Your task to perform on an android device: What's the weather going to be this weekend? Image 0: 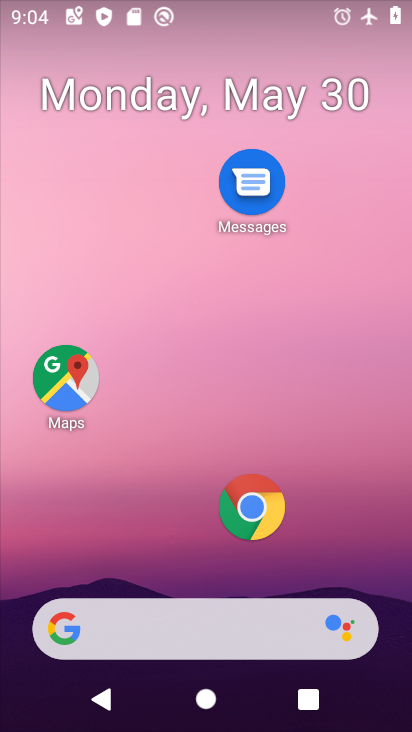
Step 0: click (223, 621)
Your task to perform on an android device: What's the weather going to be this weekend? Image 1: 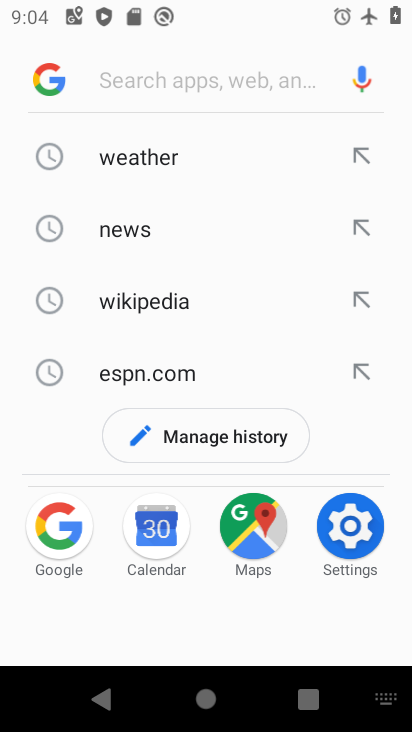
Step 1: click (165, 167)
Your task to perform on an android device: What's the weather going to be this weekend? Image 2: 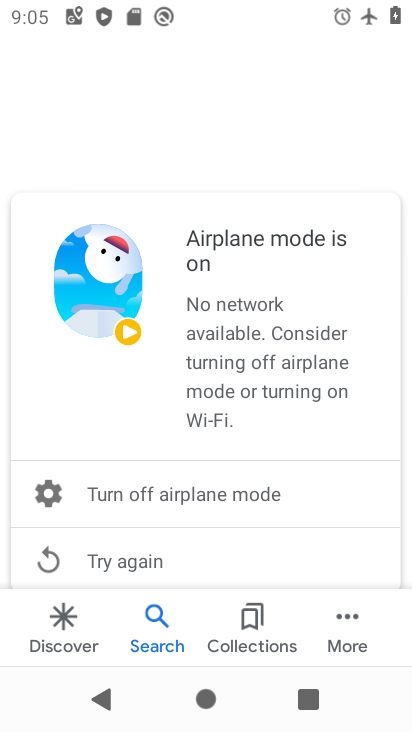
Step 2: task complete